Your task to perform on an android device: toggle airplane mode Image 0: 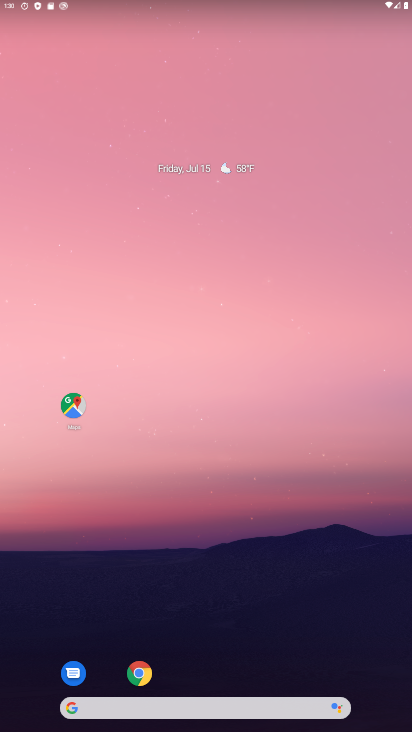
Step 0: drag from (213, 674) to (273, 166)
Your task to perform on an android device: toggle airplane mode Image 1: 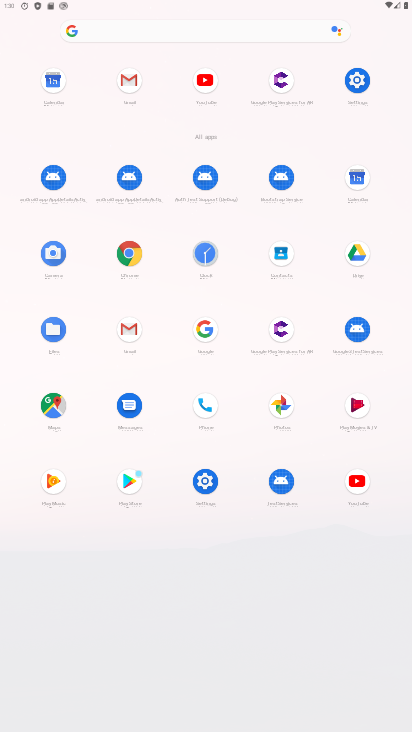
Step 1: click (360, 78)
Your task to perform on an android device: toggle airplane mode Image 2: 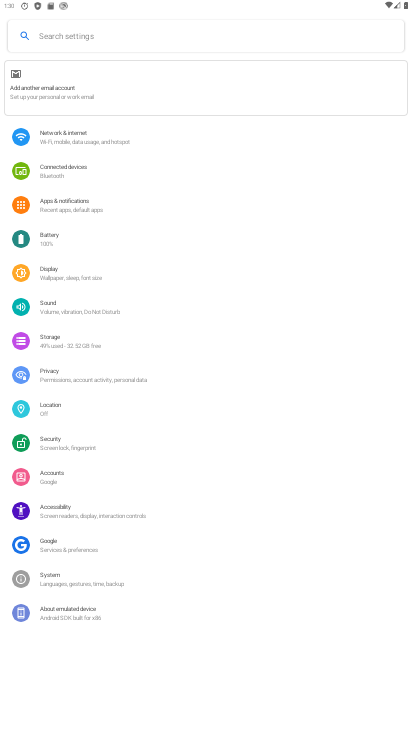
Step 2: click (73, 128)
Your task to perform on an android device: toggle airplane mode Image 3: 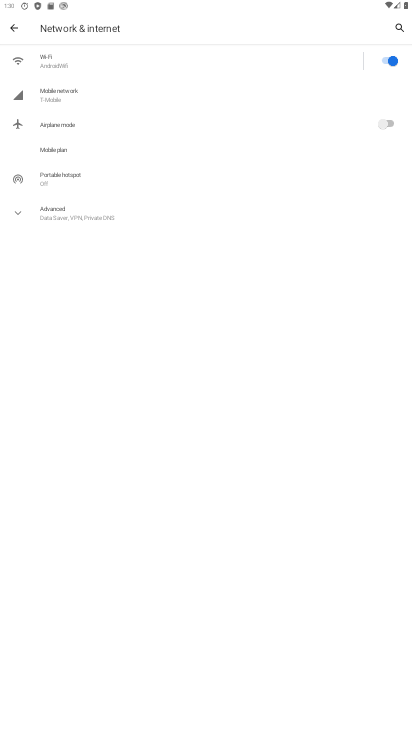
Step 3: click (388, 116)
Your task to perform on an android device: toggle airplane mode Image 4: 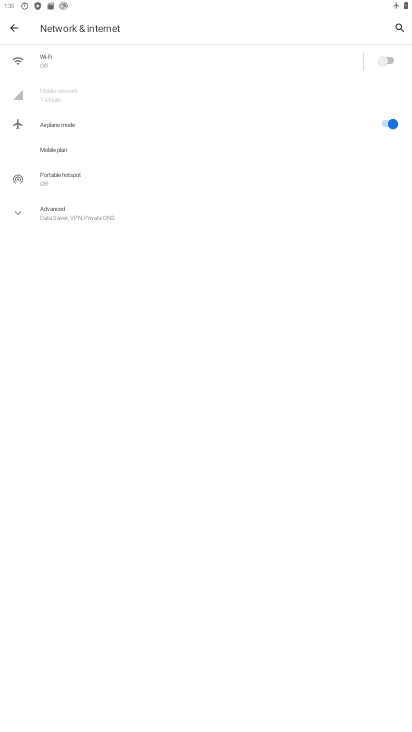
Step 4: task complete